Your task to perform on an android device: What is the recent news? Image 0: 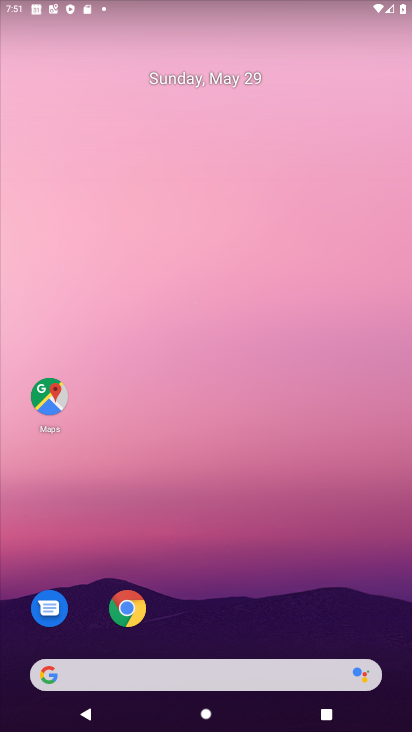
Step 0: drag from (216, 579) to (180, 208)
Your task to perform on an android device: What is the recent news? Image 1: 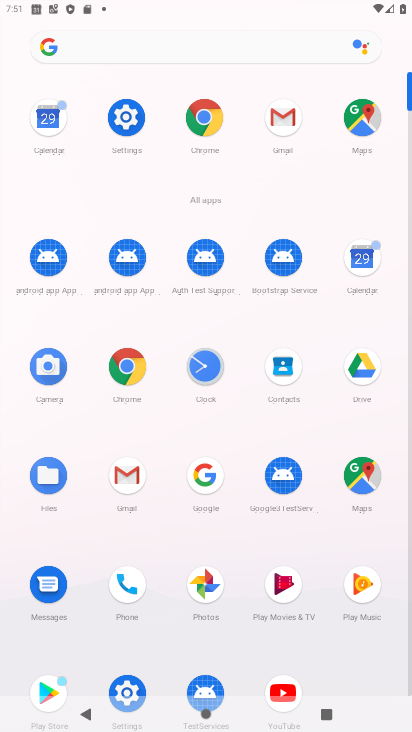
Step 1: click (100, 48)
Your task to perform on an android device: What is the recent news? Image 2: 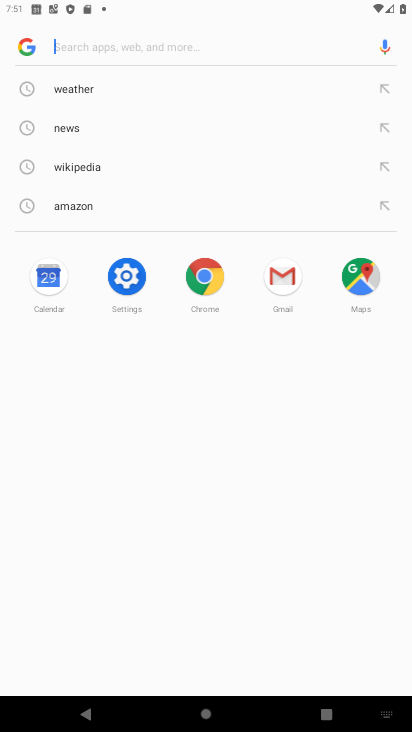
Step 2: click (55, 124)
Your task to perform on an android device: What is the recent news? Image 3: 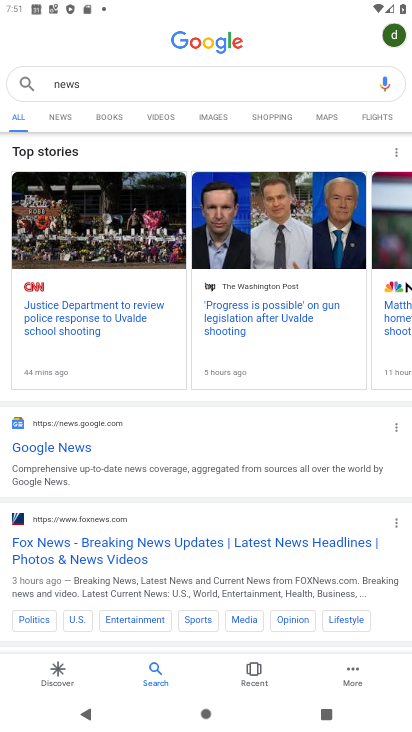
Step 3: task complete